Your task to perform on an android device: turn off javascript in the chrome app Image 0: 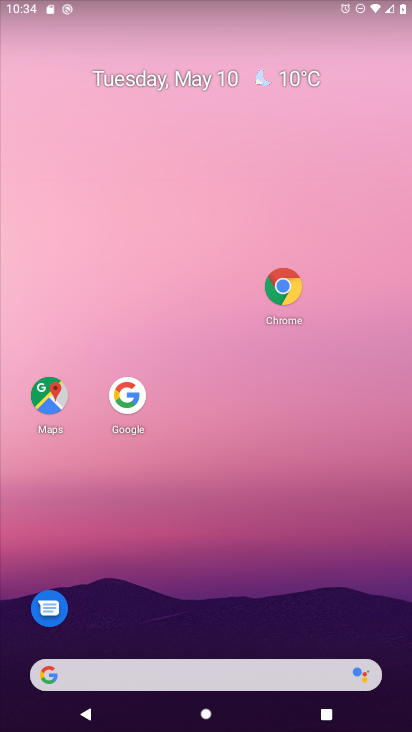
Step 0: drag from (162, 675) to (269, 137)
Your task to perform on an android device: turn off javascript in the chrome app Image 1: 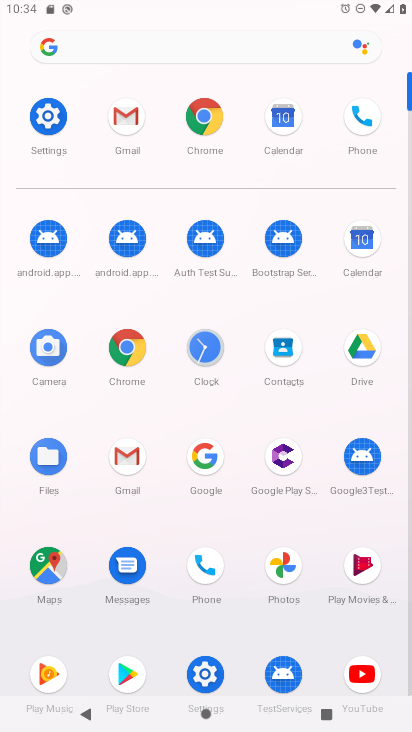
Step 1: click (203, 119)
Your task to perform on an android device: turn off javascript in the chrome app Image 2: 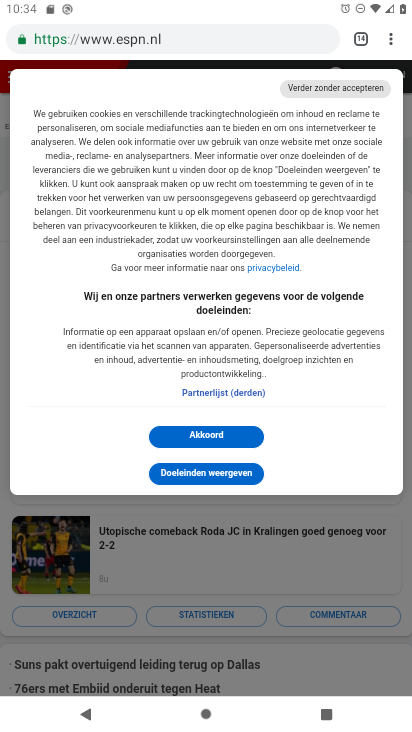
Step 2: drag from (385, 43) to (273, 476)
Your task to perform on an android device: turn off javascript in the chrome app Image 3: 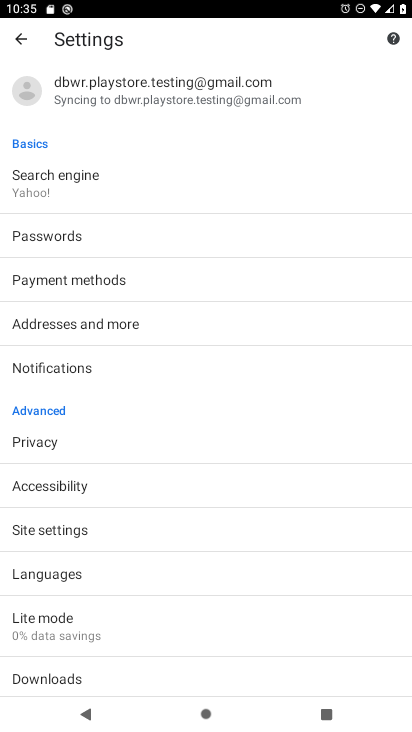
Step 3: click (79, 530)
Your task to perform on an android device: turn off javascript in the chrome app Image 4: 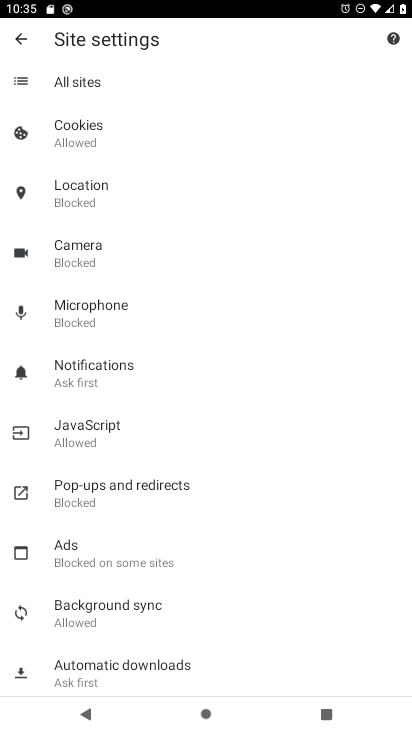
Step 4: click (96, 435)
Your task to perform on an android device: turn off javascript in the chrome app Image 5: 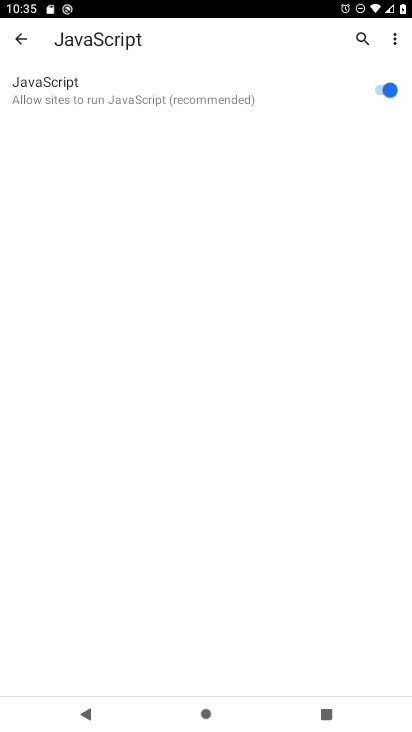
Step 5: click (376, 86)
Your task to perform on an android device: turn off javascript in the chrome app Image 6: 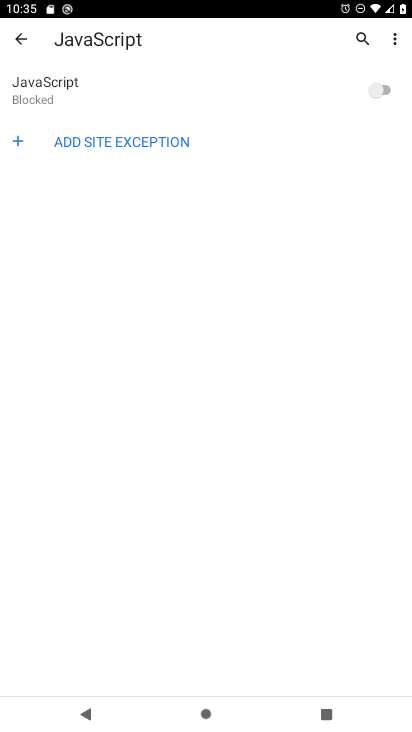
Step 6: task complete